Your task to perform on an android device: When is my next meeting? Image 0: 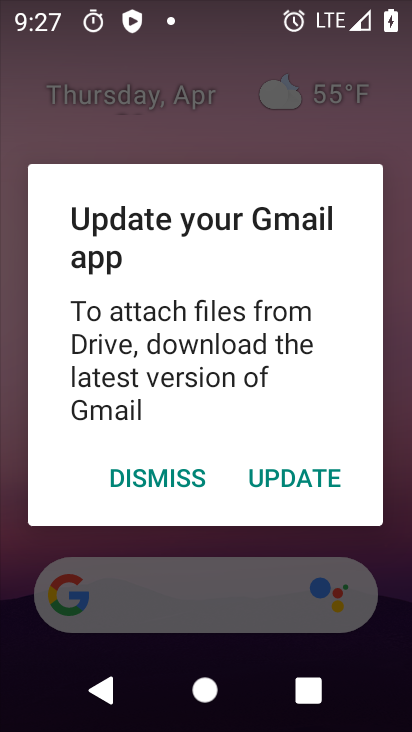
Step 0: press home button
Your task to perform on an android device: When is my next meeting? Image 1: 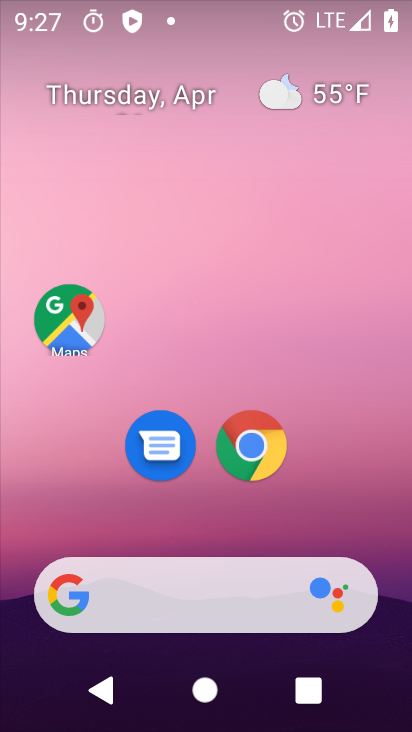
Step 1: drag from (346, 527) to (353, 0)
Your task to perform on an android device: When is my next meeting? Image 2: 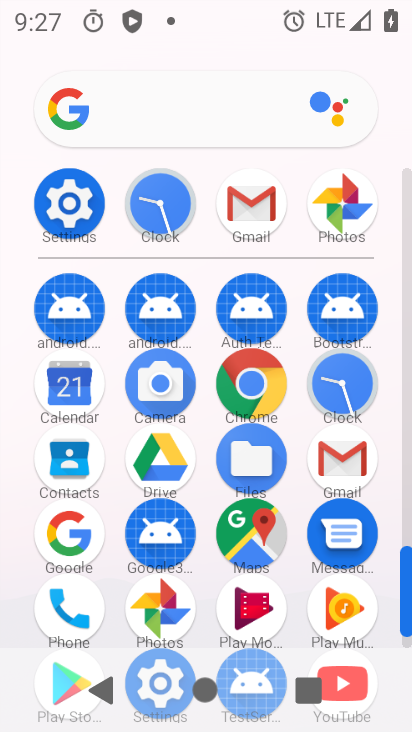
Step 2: click (68, 391)
Your task to perform on an android device: When is my next meeting? Image 3: 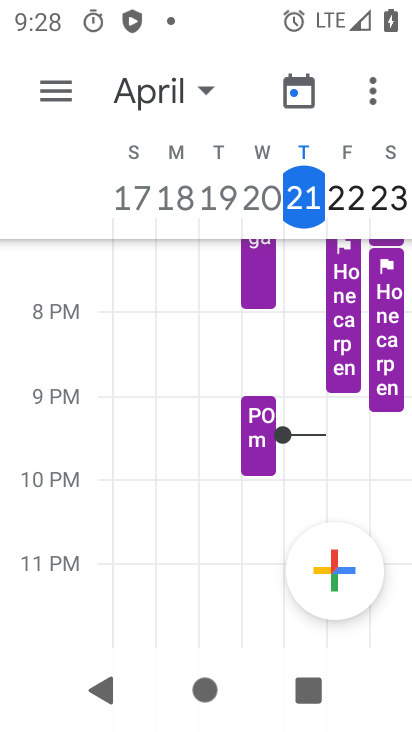
Step 3: press home button
Your task to perform on an android device: When is my next meeting? Image 4: 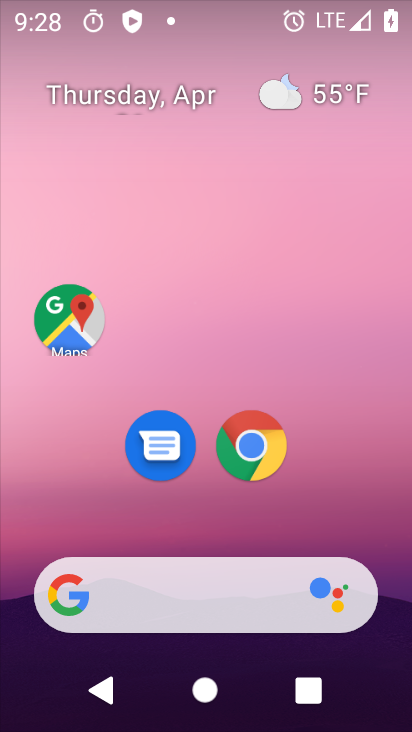
Step 4: drag from (377, 518) to (331, 4)
Your task to perform on an android device: When is my next meeting? Image 5: 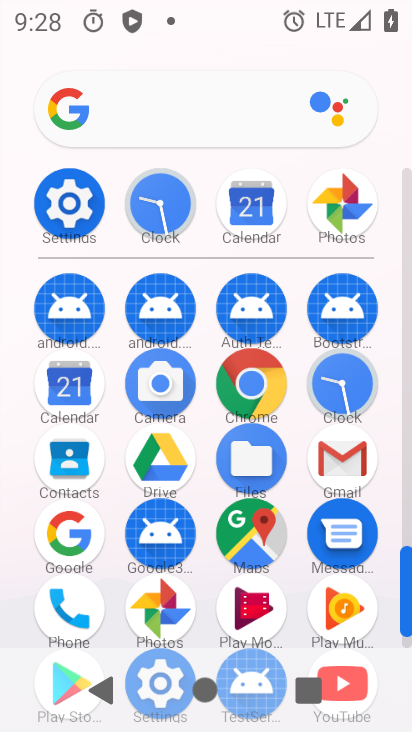
Step 5: click (66, 401)
Your task to perform on an android device: When is my next meeting? Image 6: 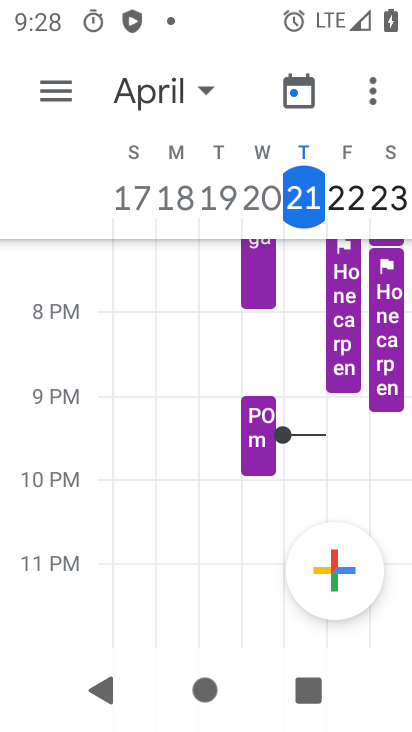
Step 6: click (340, 353)
Your task to perform on an android device: When is my next meeting? Image 7: 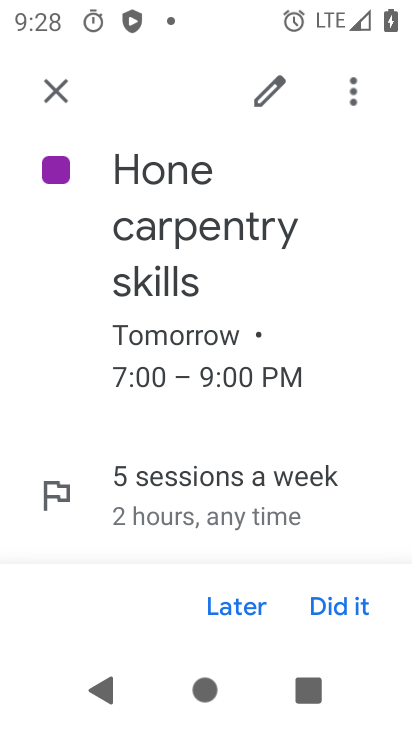
Step 7: task complete